Your task to perform on an android device: Go to sound settings Image 0: 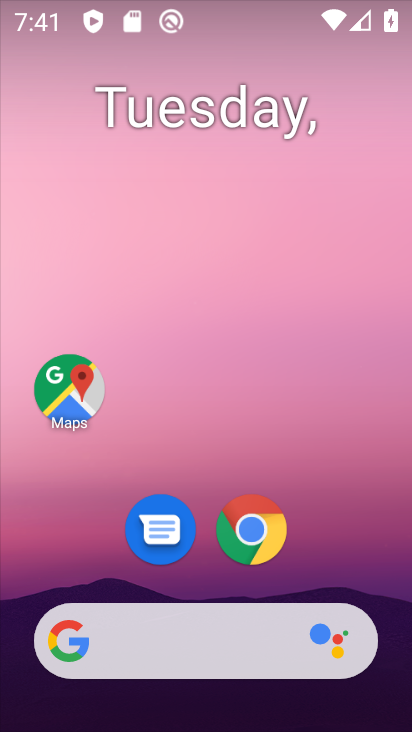
Step 0: drag from (259, 645) to (334, 122)
Your task to perform on an android device: Go to sound settings Image 1: 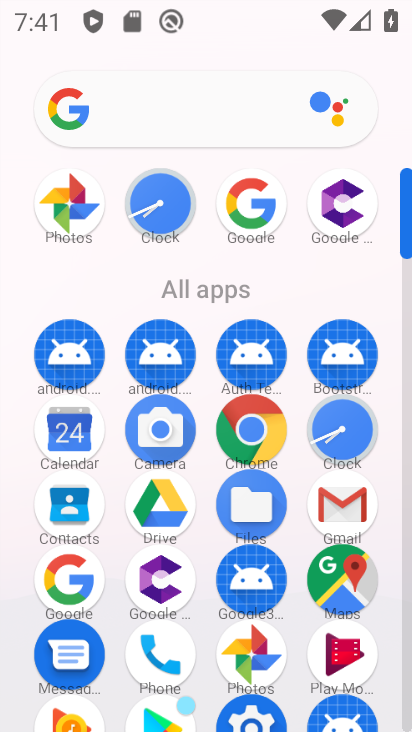
Step 1: drag from (221, 597) to (331, 91)
Your task to perform on an android device: Go to sound settings Image 2: 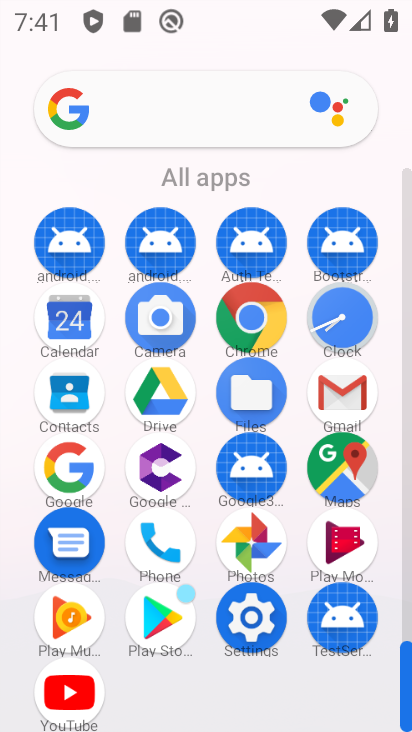
Step 2: click (266, 611)
Your task to perform on an android device: Go to sound settings Image 3: 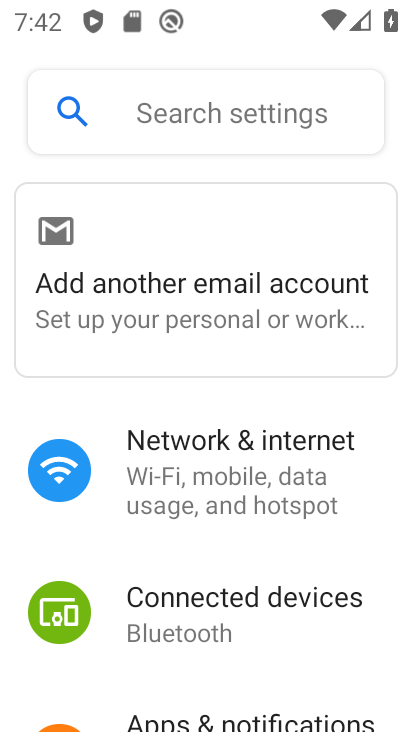
Step 3: drag from (308, 595) to (271, 145)
Your task to perform on an android device: Go to sound settings Image 4: 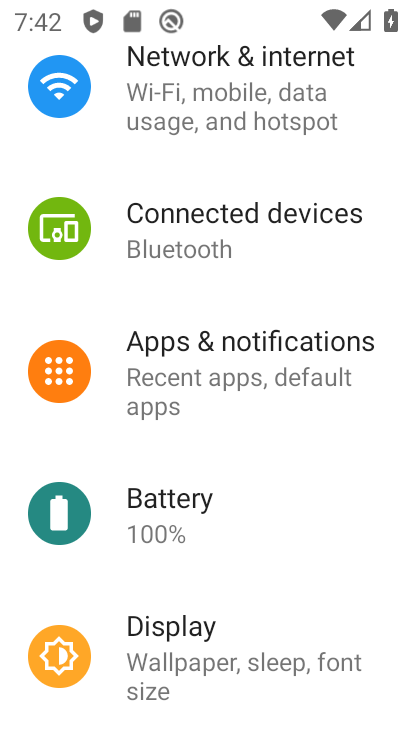
Step 4: drag from (290, 628) to (361, 104)
Your task to perform on an android device: Go to sound settings Image 5: 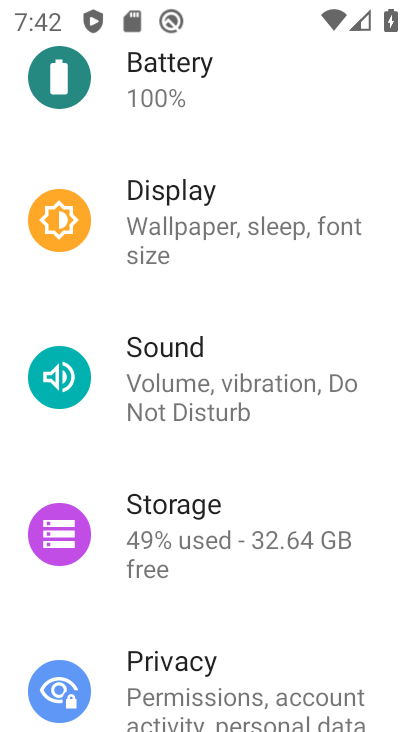
Step 5: click (293, 367)
Your task to perform on an android device: Go to sound settings Image 6: 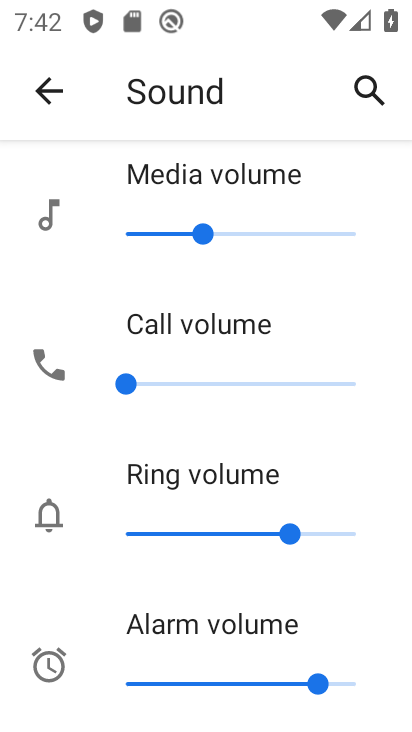
Step 6: task complete